Your task to perform on an android device: see creations saved in the google photos Image 0: 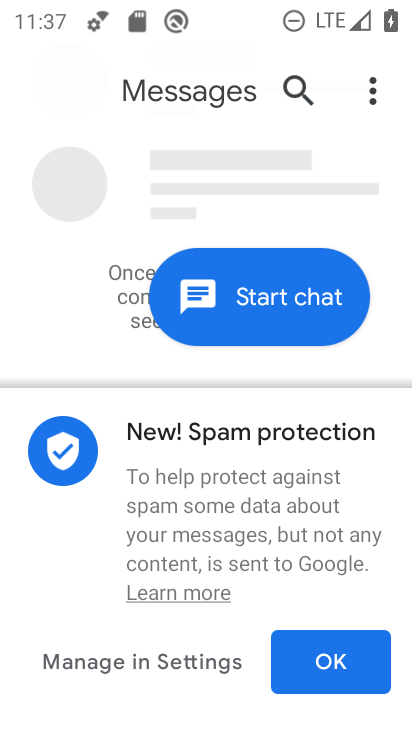
Step 0: press home button
Your task to perform on an android device: see creations saved in the google photos Image 1: 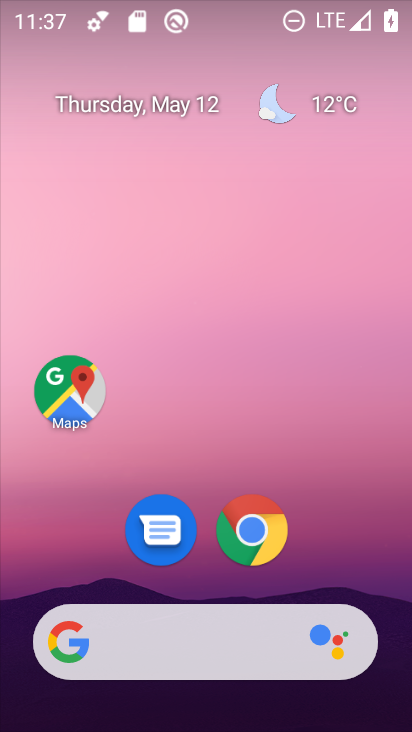
Step 1: drag from (192, 646) to (324, 211)
Your task to perform on an android device: see creations saved in the google photos Image 2: 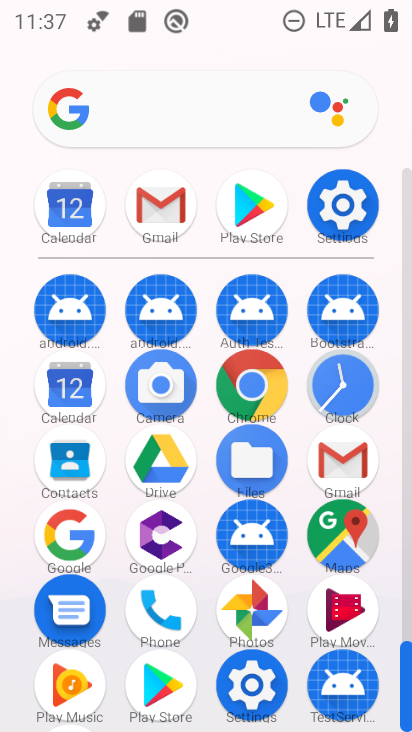
Step 2: click (255, 592)
Your task to perform on an android device: see creations saved in the google photos Image 3: 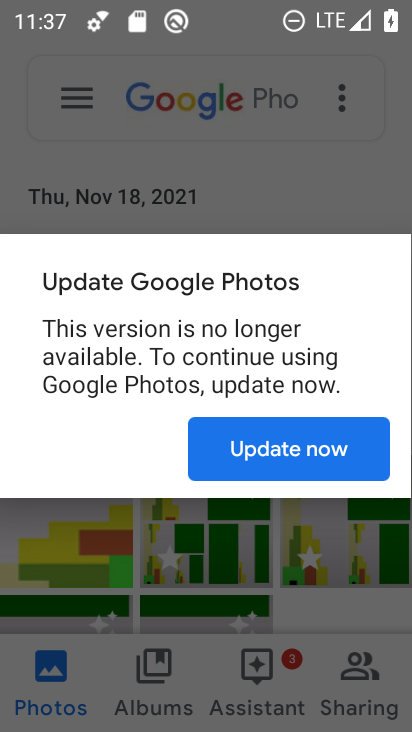
Step 3: click (318, 455)
Your task to perform on an android device: see creations saved in the google photos Image 4: 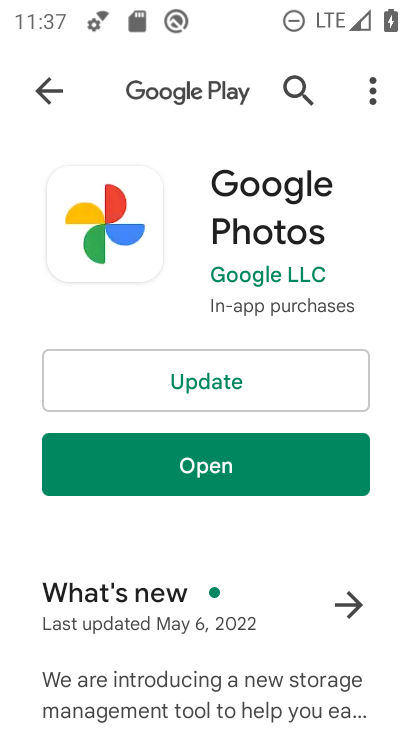
Step 4: click (203, 462)
Your task to perform on an android device: see creations saved in the google photos Image 5: 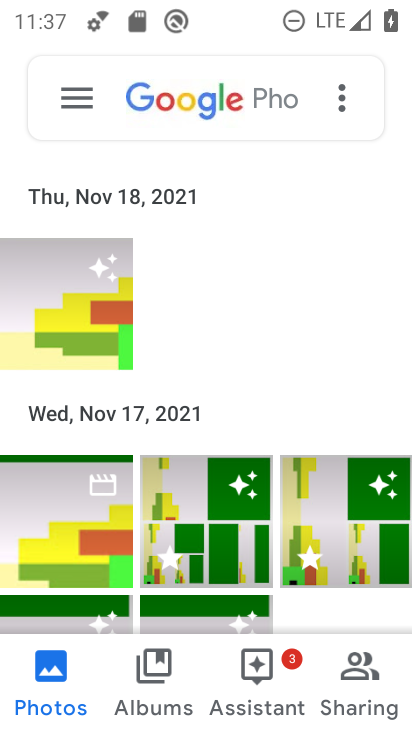
Step 5: click (144, 669)
Your task to perform on an android device: see creations saved in the google photos Image 6: 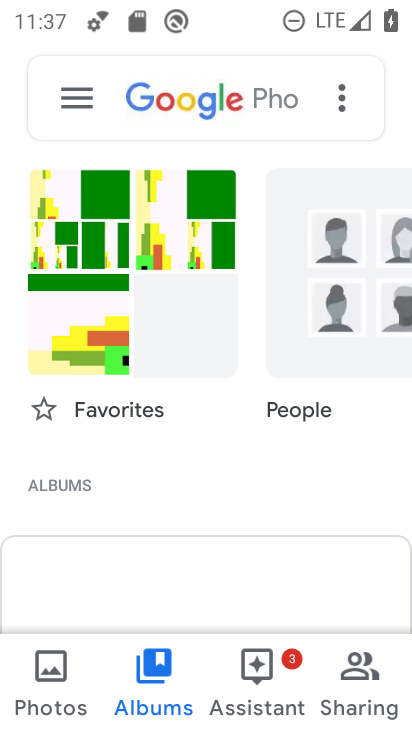
Step 6: click (223, 79)
Your task to perform on an android device: see creations saved in the google photos Image 7: 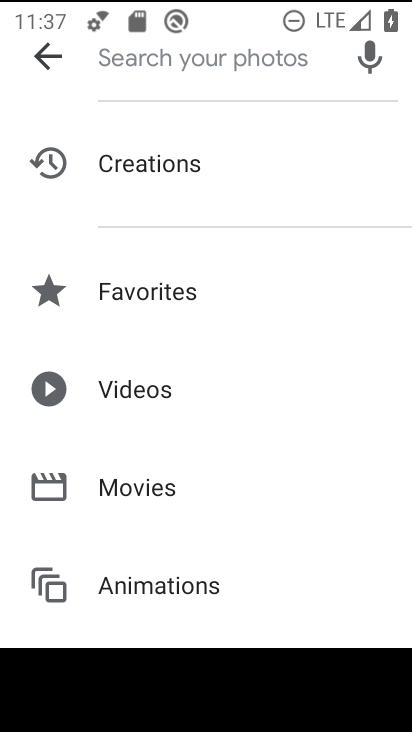
Step 7: drag from (198, 463) to (268, 129)
Your task to perform on an android device: see creations saved in the google photos Image 8: 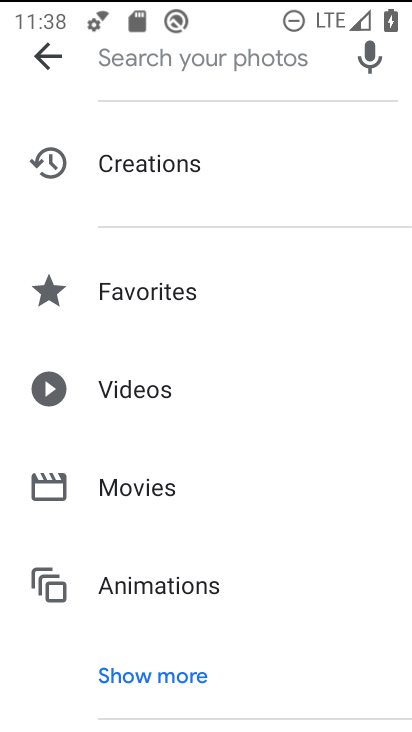
Step 8: click (144, 666)
Your task to perform on an android device: see creations saved in the google photos Image 9: 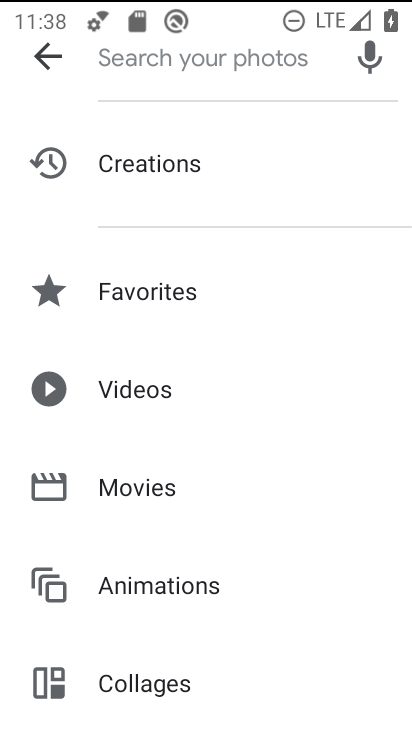
Step 9: drag from (205, 633) to (253, 237)
Your task to perform on an android device: see creations saved in the google photos Image 10: 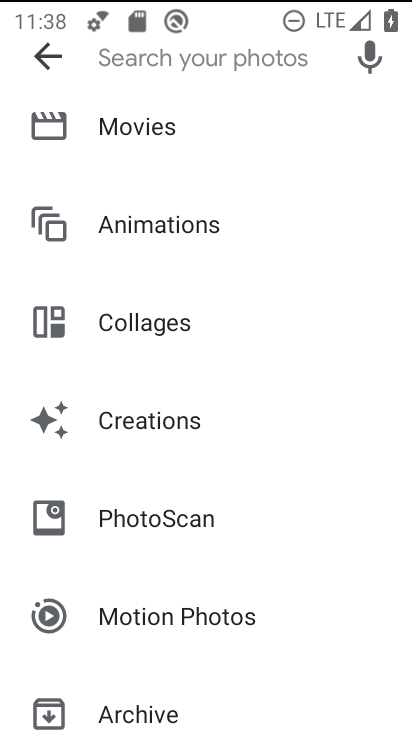
Step 10: click (152, 421)
Your task to perform on an android device: see creations saved in the google photos Image 11: 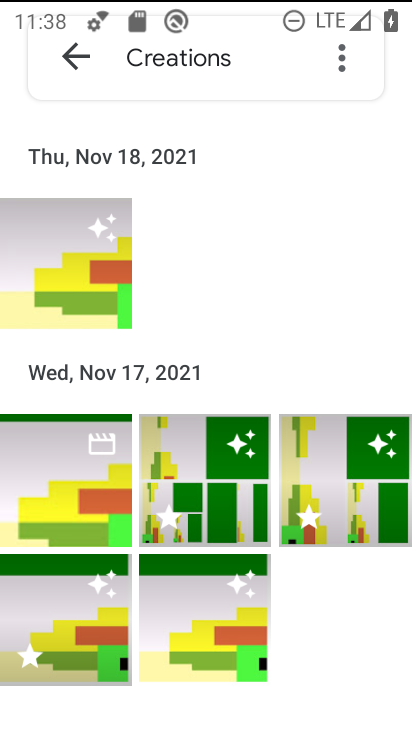
Step 11: task complete